Your task to perform on an android device: all mails in gmail Image 0: 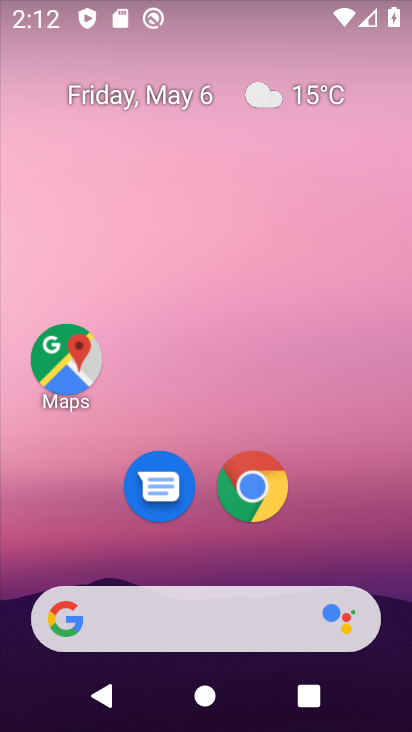
Step 0: drag from (341, 518) to (302, 1)
Your task to perform on an android device: all mails in gmail Image 1: 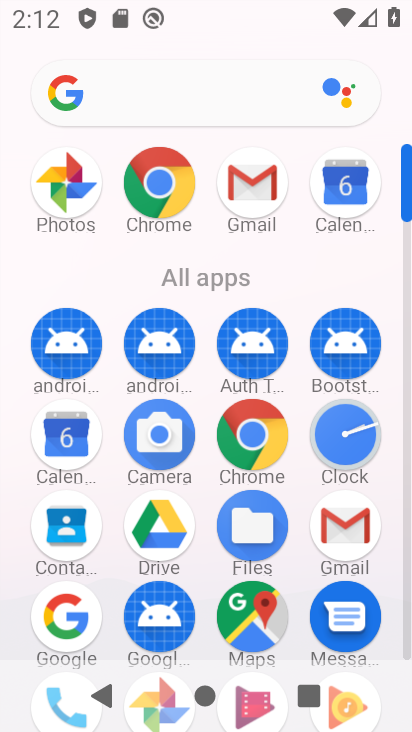
Step 1: click (248, 186)
Your task to perform on an android device: all mails in gmail Image 2: 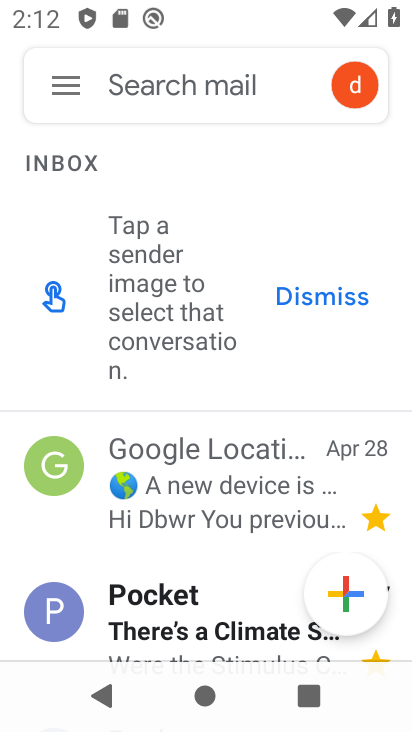
Step 2: click (61, 87)
Your task to perform on an android device: all mails in gmail Image 3: 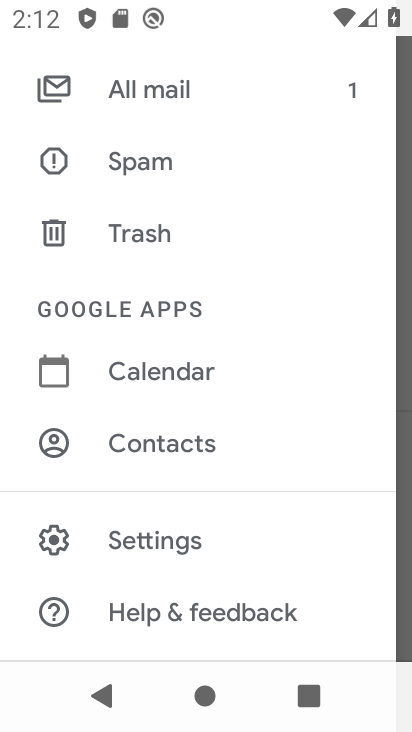
Step 3: click (175, 93)
Your task to perform on an android device: all mails in gmail Image 4: 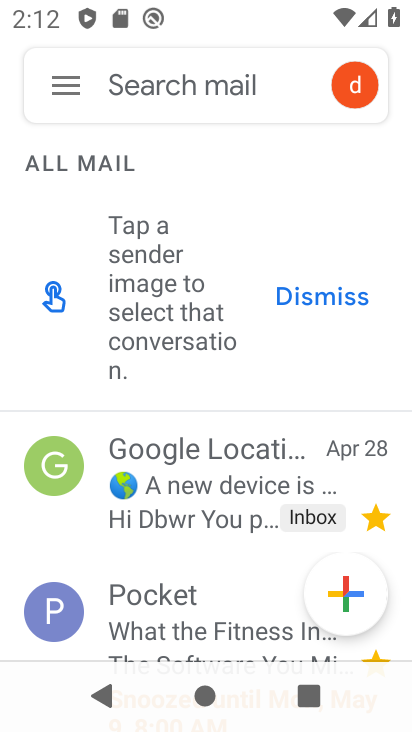
Step 4: task complete